Your task to perform on an android device: check out phone information Image 0: 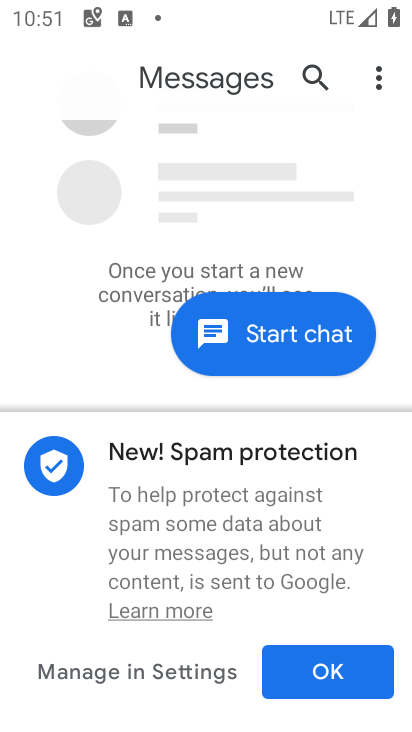
Step 0: press home button
Your task to perform on an android device: check out phone information Image 1: 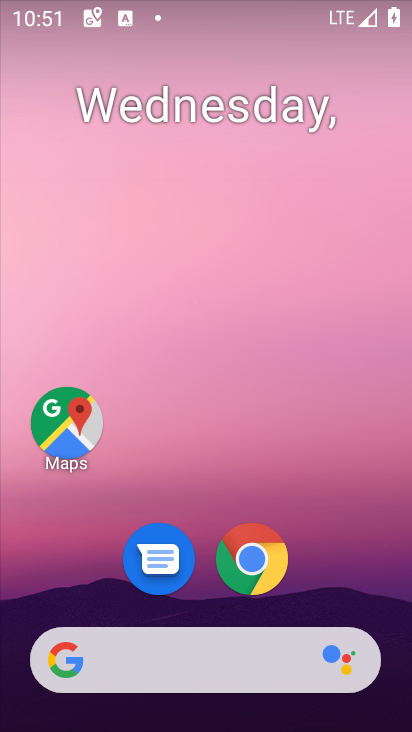
Step 1: drag from (208, 613) to (180, 234)
Your task to perform on an android device: check out phone information Image 2: 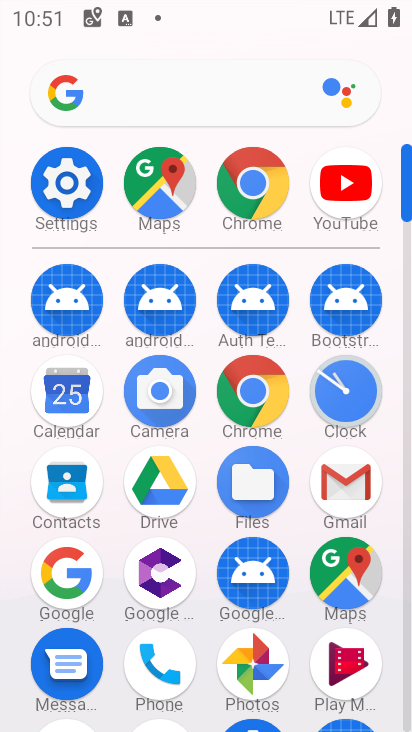
Step 2: click (67, 188)
Your task to perform on an android device: check out phone information Image 3: 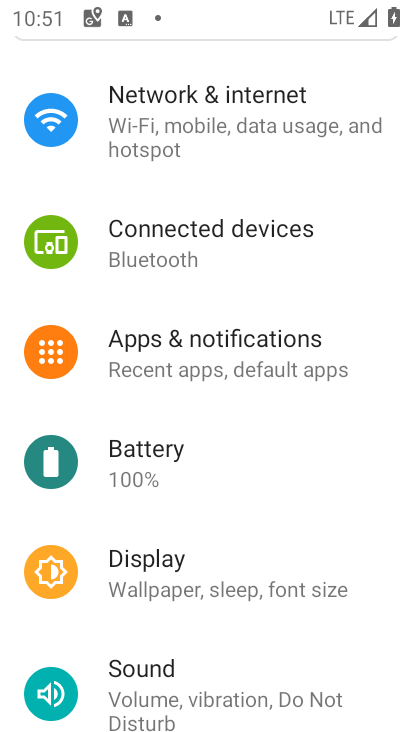
Step 3: drag from (112, 552) to (98, 169)
Your task to perform on an android device: check out phone information Image 4: 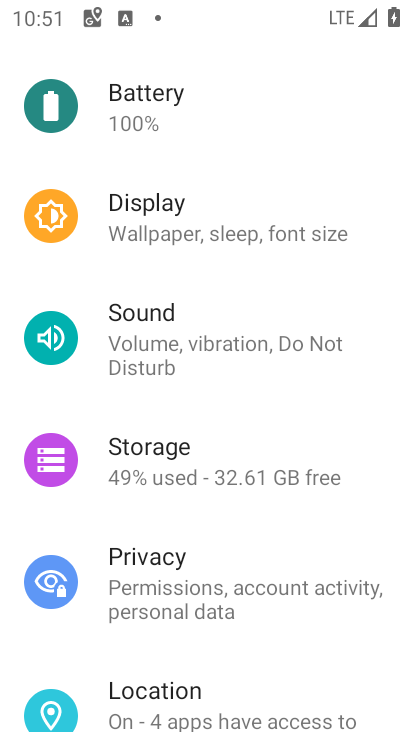
Step 4: drag from (227, 632) to (210, 189)
Your task to perform on an android device: check out phone information Image 5: 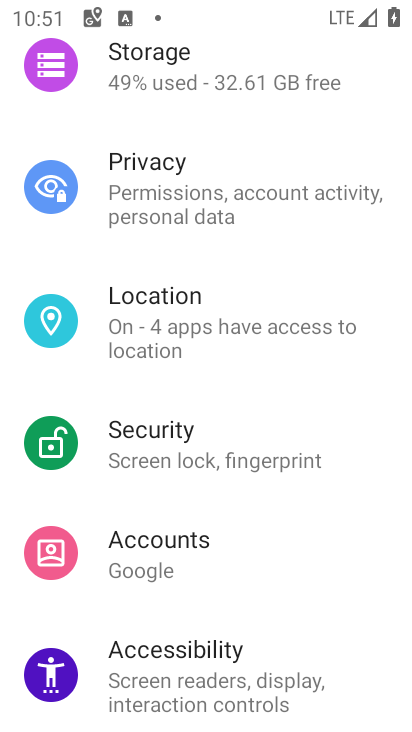
Step 5: drag from (204, 574) to (156, 3)
Your task to perform on an android device: check out phone information Image 6: 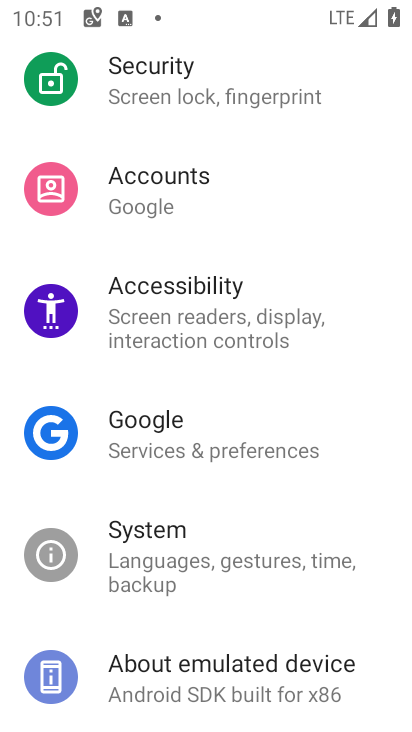
Step 6: click (198, 669)
Your task to perform on an android device: check out phone information Image 7: 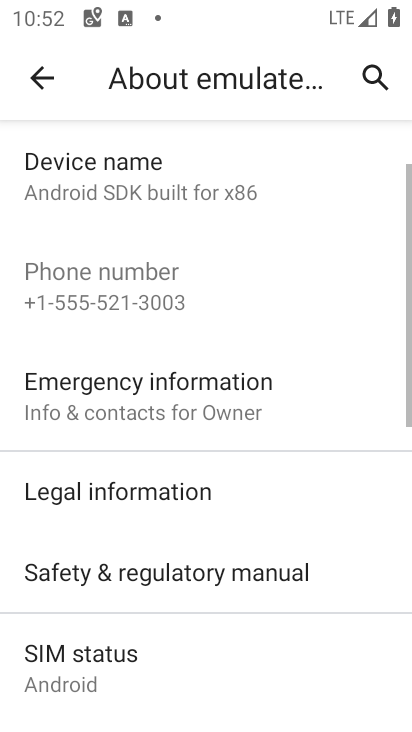
Step 7: task complete